Your task to perform on an android device: Open the map Image 0: 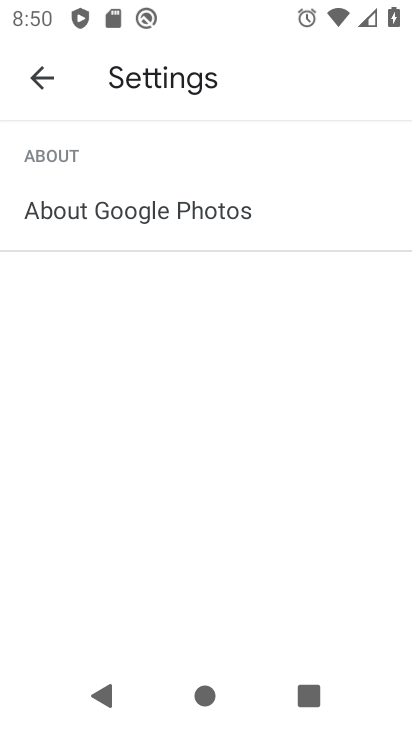
Step 0: press back button
Your task to perform on an android device: Open the map Image 1: 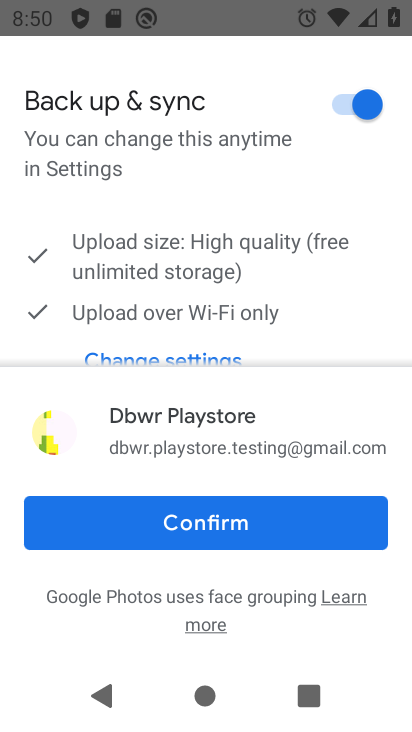
Step 1: press home button
Your task to perform on an android device: Open the map Image 2: 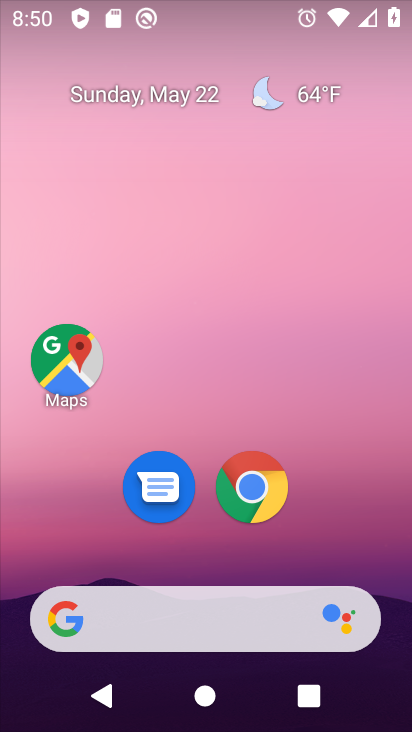
Step 2: click (67, 364)
Your task to perform on an android device: Open the map Image 3: 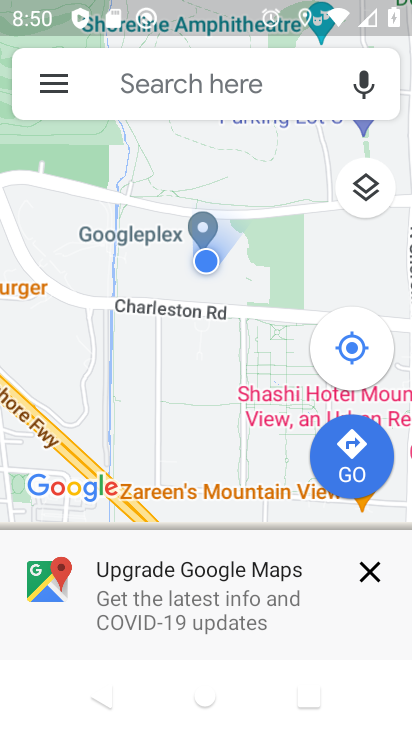
Step 3: task complete